Your task to perform on an android device: Open privacy settings Image 0: 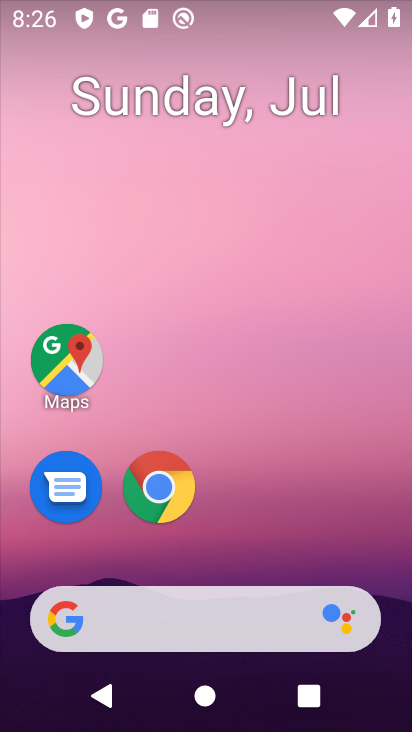
Step 0: drag from (203, 574) to (307, 0)
Your task to perform on an android device: Open privacy settings Image 1: 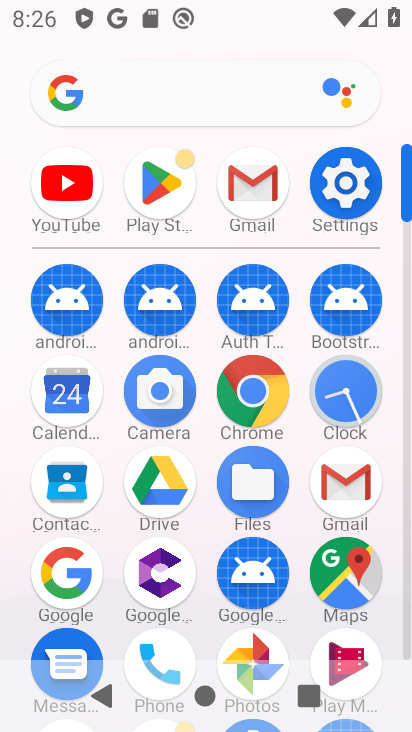
Step 1: click (347, 186)
Your task to perform on an android device: Open privacy settings Image 2: 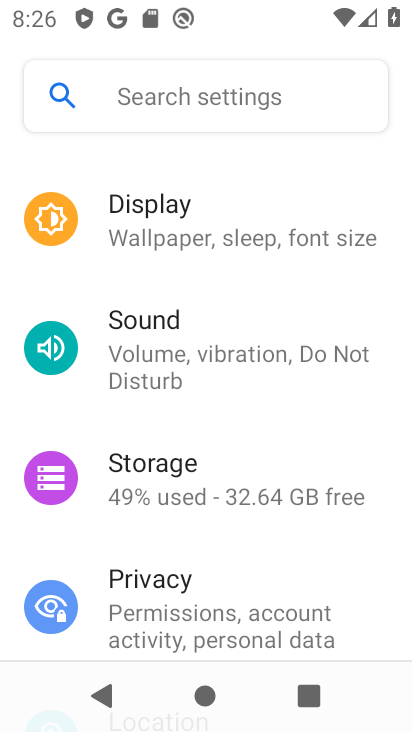
Step 2: click (148, 622)
Your task to perform on an android device: Open privacy settings Image 3: 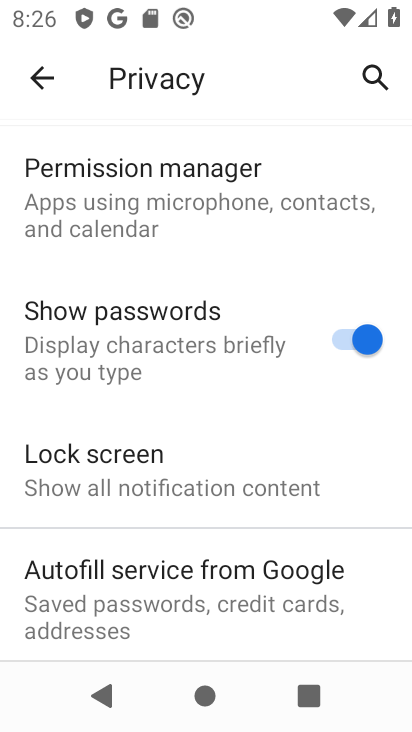
Step 3: task complete